Your task to perform on an android device: Open wifi settings Image 0: 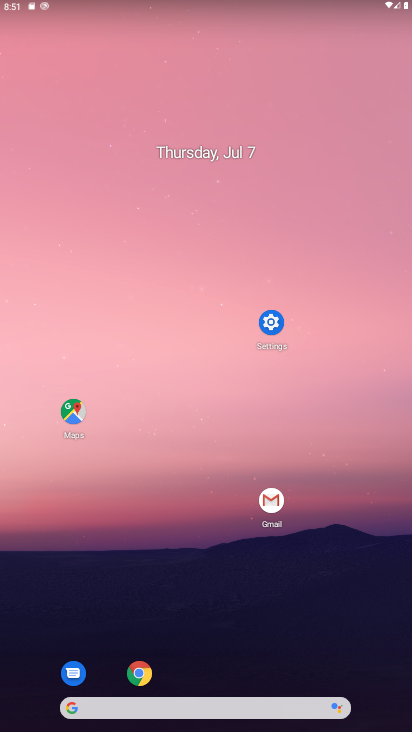
Step 0: click (276, 330)
Your task to perform on an android device: Open wifi settings Image 1: 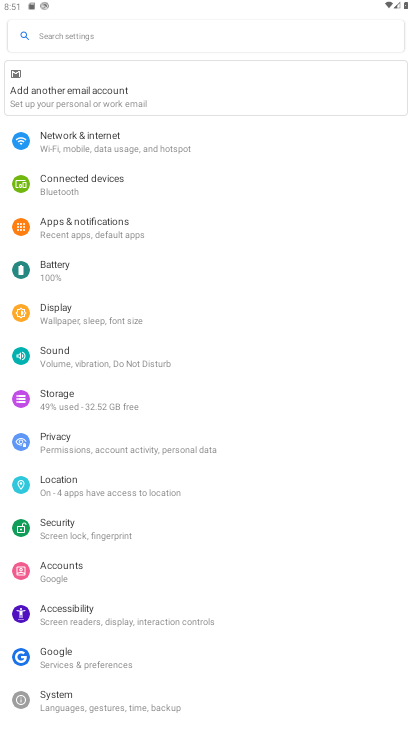
Step 1: click (206, 144)
Your task to perform on an android device: Open wifi settings Image 2: 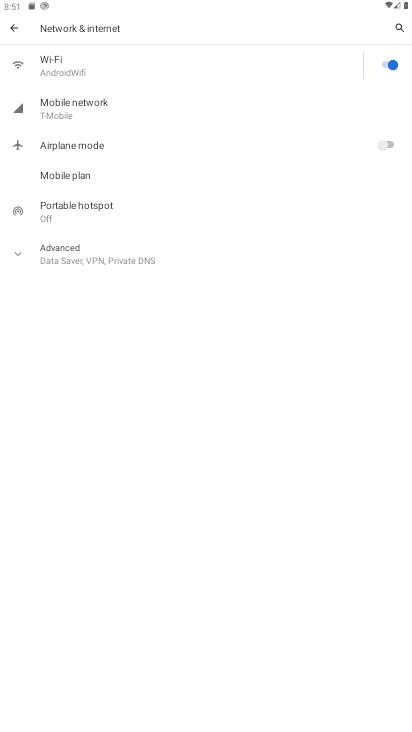
Step 2: click (133, 70)
Your task to perform on an android device: Open wifi settings Image 3: 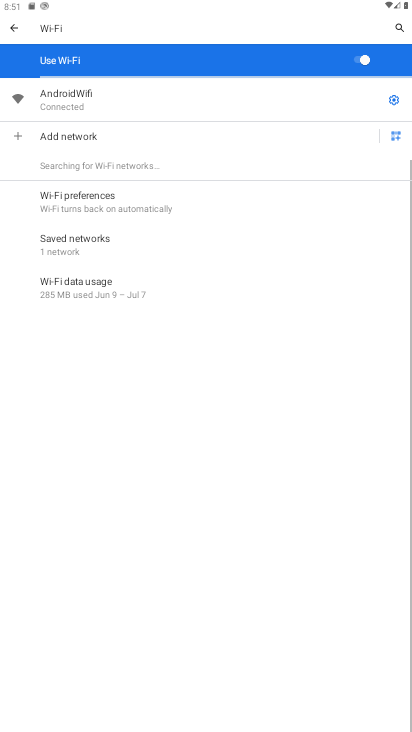
Step 3: click (396, 96)
Your task to perform on an android device: Open wifi settings Image 4: 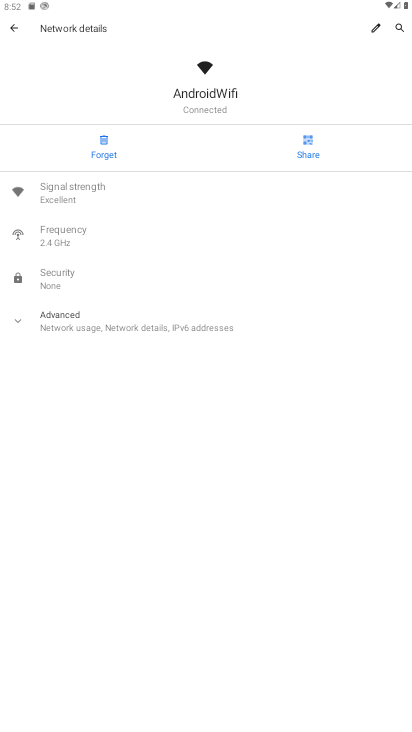
Step 4: task complete